Your task to perform on an android device: open a bookmark in the chrome app Image 0: 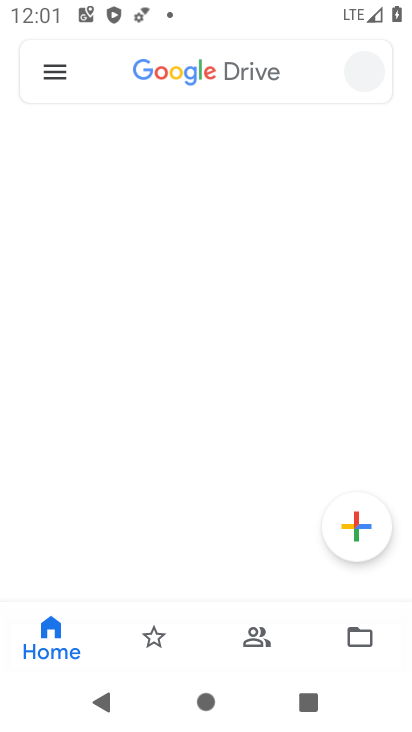
Step 0: drag from (341, 604) to (362, 298)
Your task to perform on an android device: open a bookmark in the chrome app Image 1: 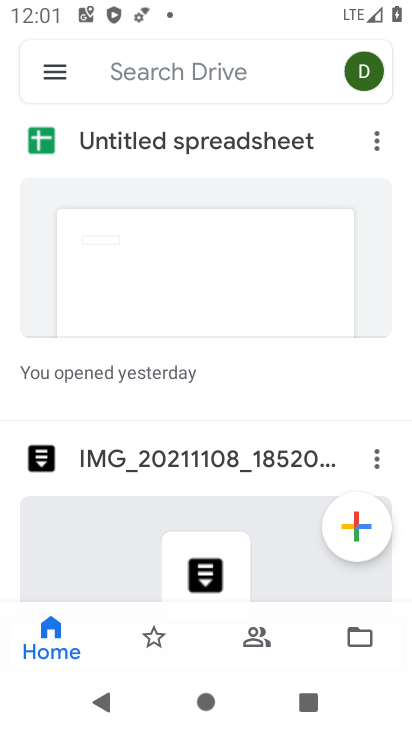
Step 1: press home button
Your task to perform on an android device: open a bookmark in the chrome app Image 2: 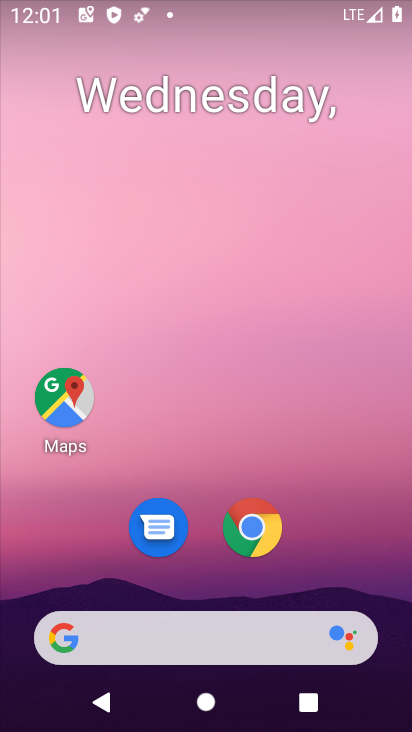
Step 2: drag from (306, 602) to (347, 107)
Your task to perform on an android device: open a bookmark in the chrome app Image 3: 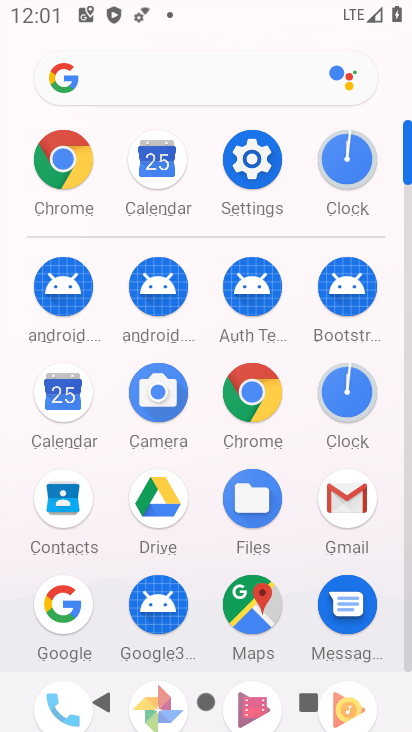
Step 3: click (232, 387)
Your task to perform on an android device: open a bookmark in the chrome app Image 4: 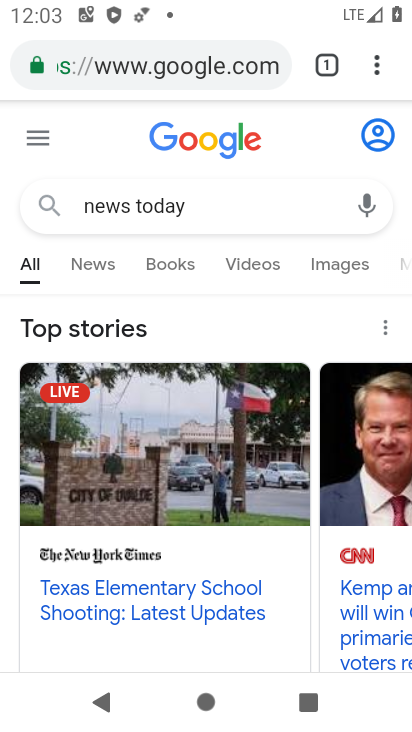
Step 4: task complete